Your task to perform on an android device: Open Wikipedia Image 0: 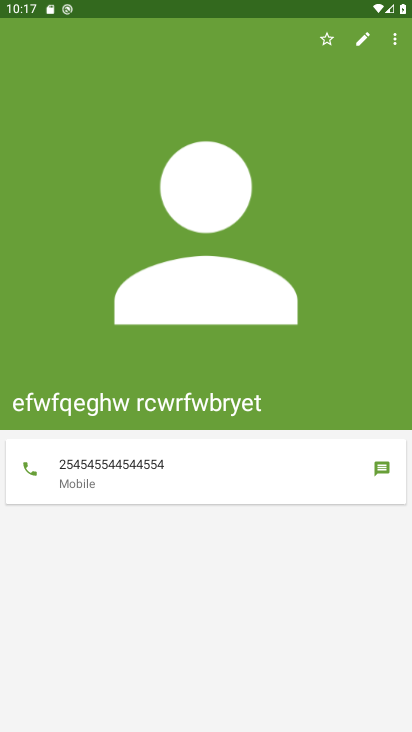
Step 0: press home button
Your task to perform on an android device: Open Wikipedia Image 1: 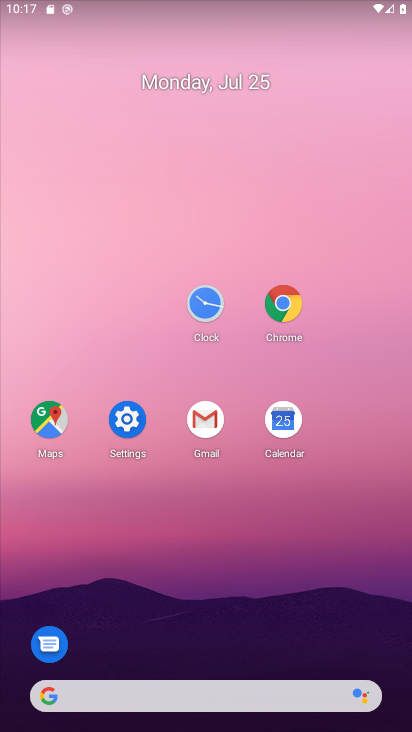
Step 1: click (282, 291)
Your task to perform on an android device: Open Wikipedia Image 2: 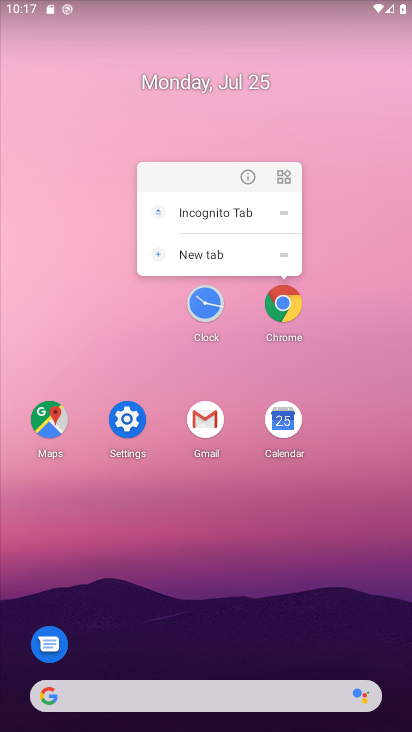
Step 2: click (287, 302)
Your task to perform on an android device: Open Wikipedia Image 3: 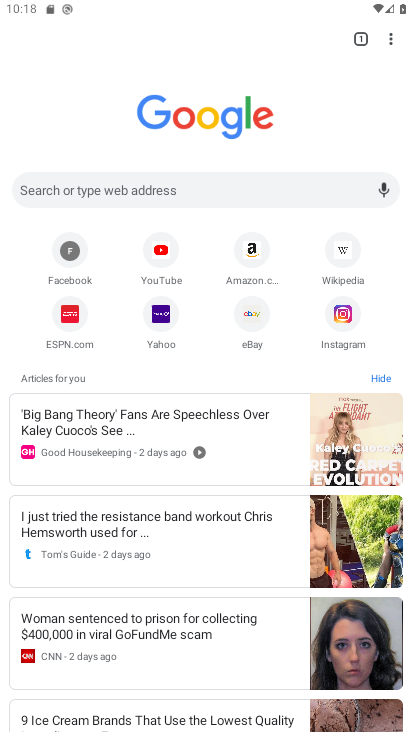
Step 3: click (217, 186)
Your task to perform on an android device: Open Wikipedia Image 4: 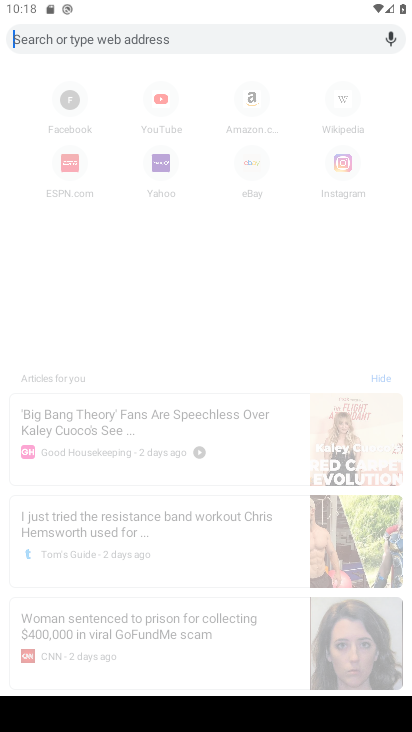
Step 4: type "Wikipedia"
Your task to perform on an android device: Open Wikipedia Image 5: 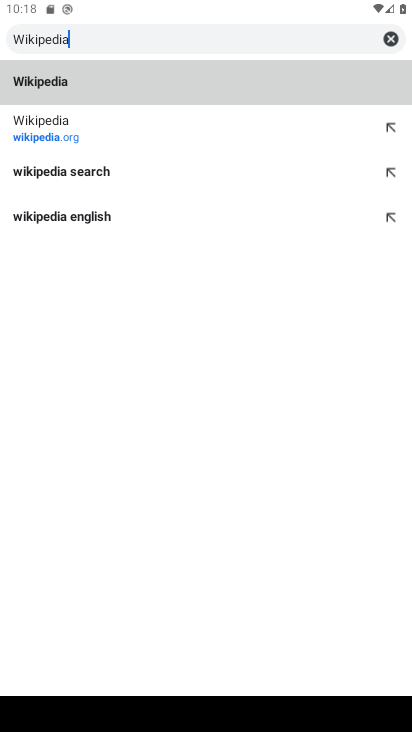
Step 5: click (110, 84)
Your task to perform on an android device: Open Wikipedia Image 6: 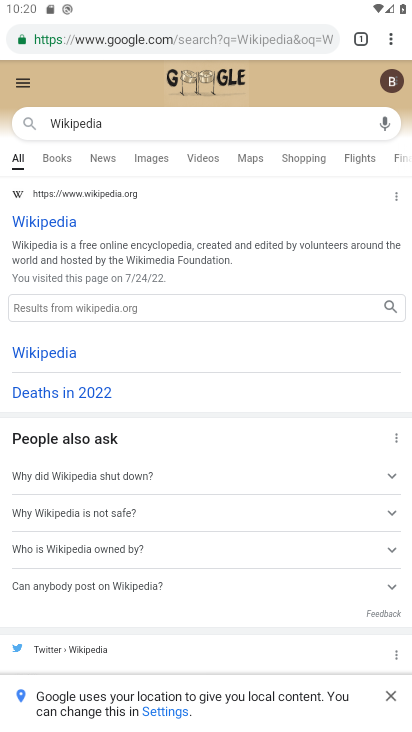
Step 6: task complete